Your task to perform on an android device: Go to ESPN.com Image 0: 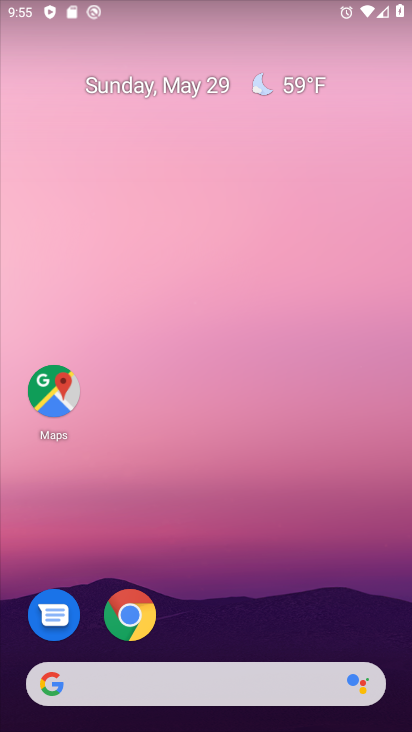
Step 0: drag from (227, 574) to (267, 31)
Your task to perform on an android device: Go to ESPN.com Image 1: 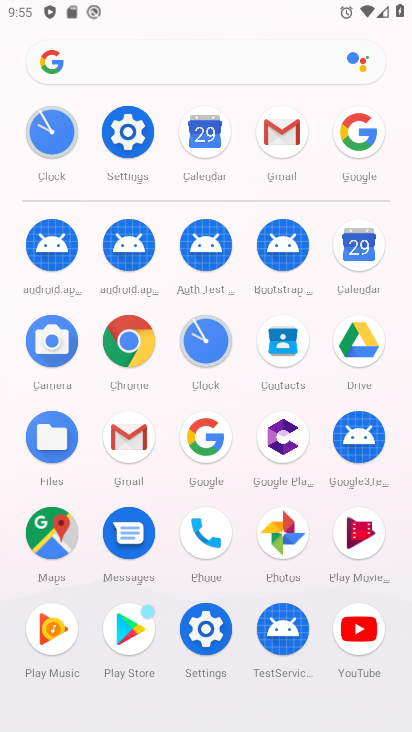
Step 1: click (196, 435)
Your task to perform on an android device: Go to ESPN.com Image 2: 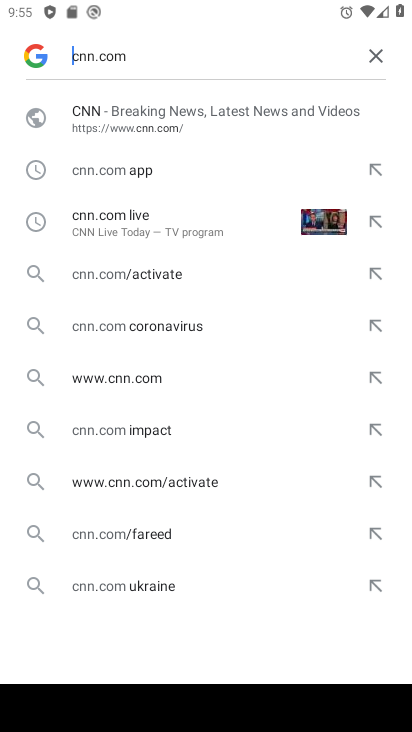
Step 2: click (198, 58)
Your task to perform on an android device: Go to ESPN.com Image 3: 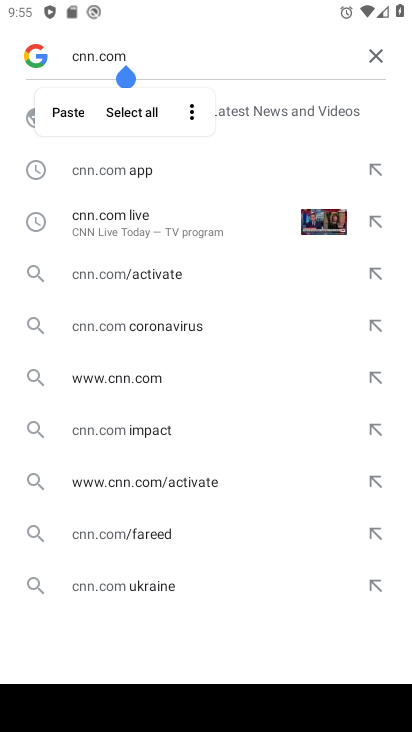
Step 3: click (377, 54)
Your task to perform on an android device: Go to ESPN.com Image 4: 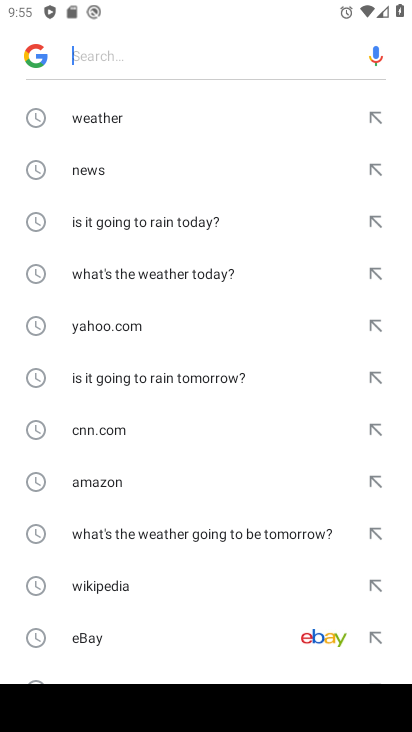
Step 4: drag from (163, 607) to (188, 284)
Your task to perform on an android device: Go to ESPN.com Image 5: 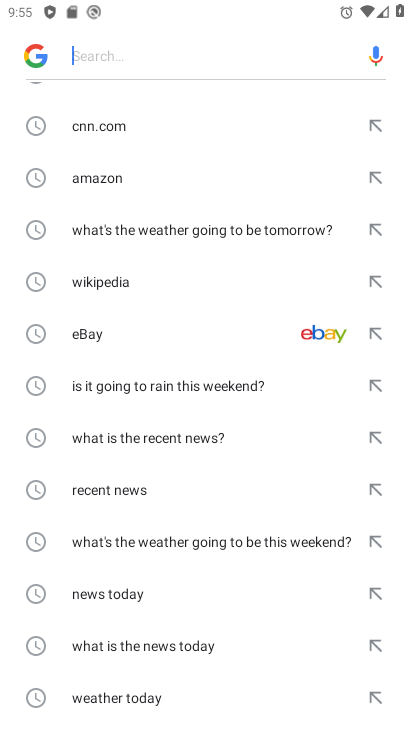
Step 5: drag from (187, 668) to (252, 87)
Your task to perform on an android device: Go to ESPN.com Image 6: 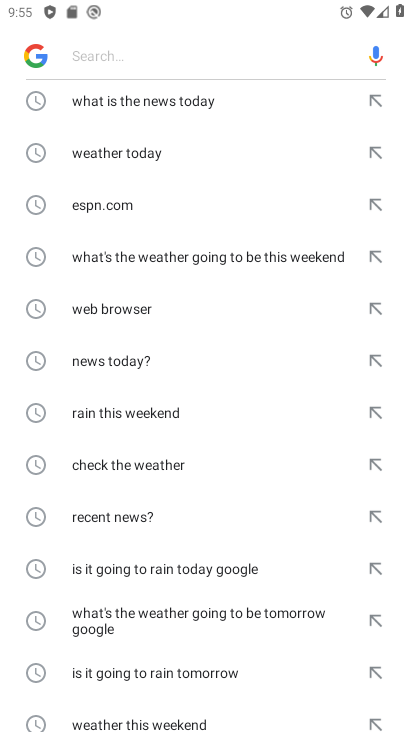
Step 6: drag from (199, 635) to (216, 217)
Your task to perform on an android device: Go to ESPN.com Image 7: 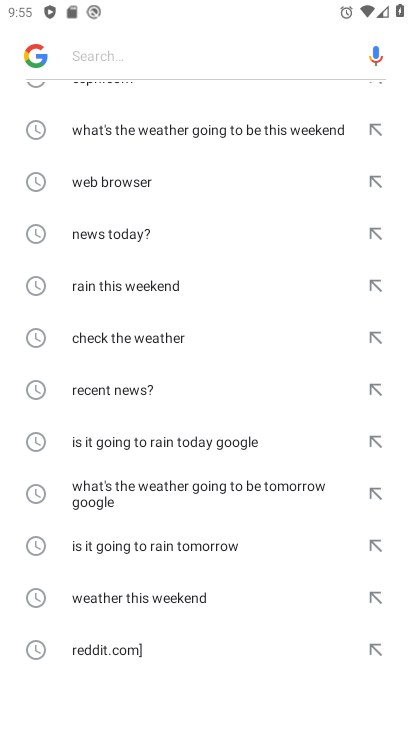
Step 7: type "espn.com"
Your task to perform on an android device: Go to ESPN.com Image 8: 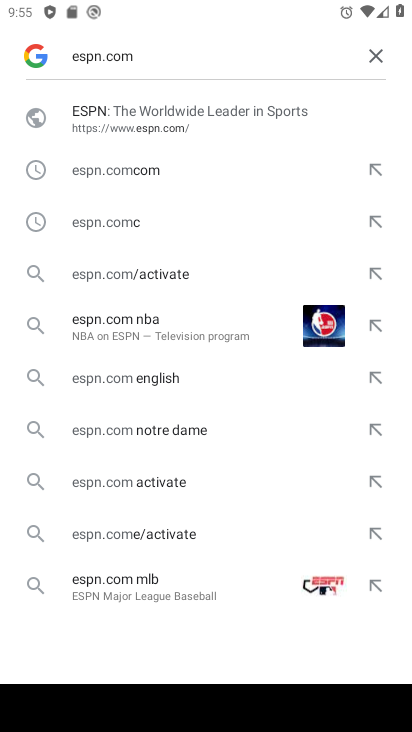
Step 8: click (109, 115)
Your task to perform on an android device: Go to ESPN.com Image 9: 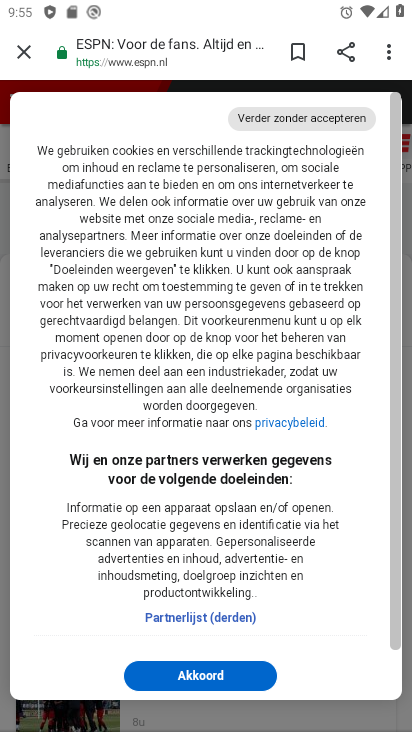
Step 9: task complete